Your task to perform on an android device: Clear the cart on bestbuy.com. Image 0: 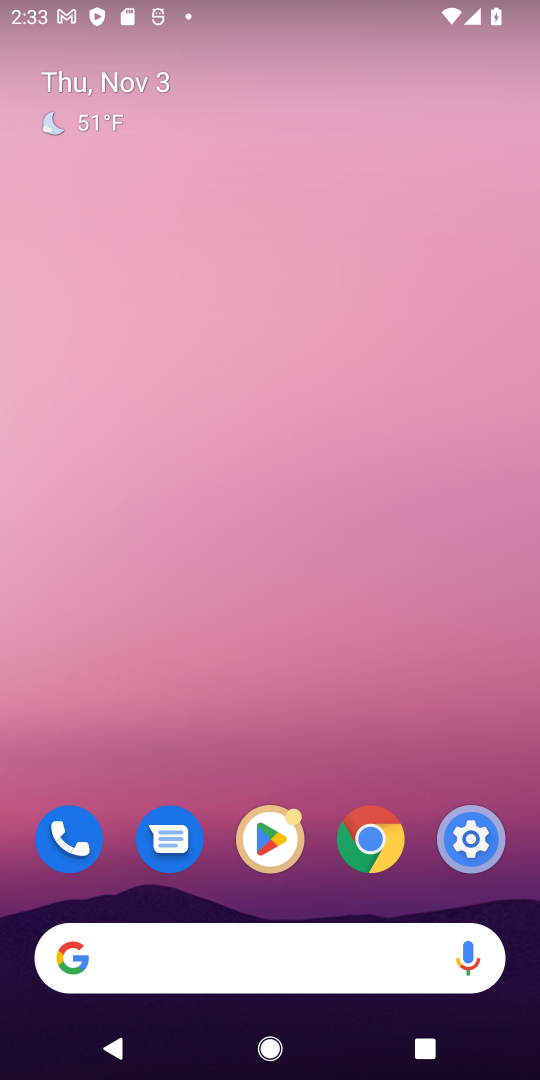
Step 0: click (266, 974)
Your task to perform on an android device: Clear the cart on bestbuy.com. Image 1: 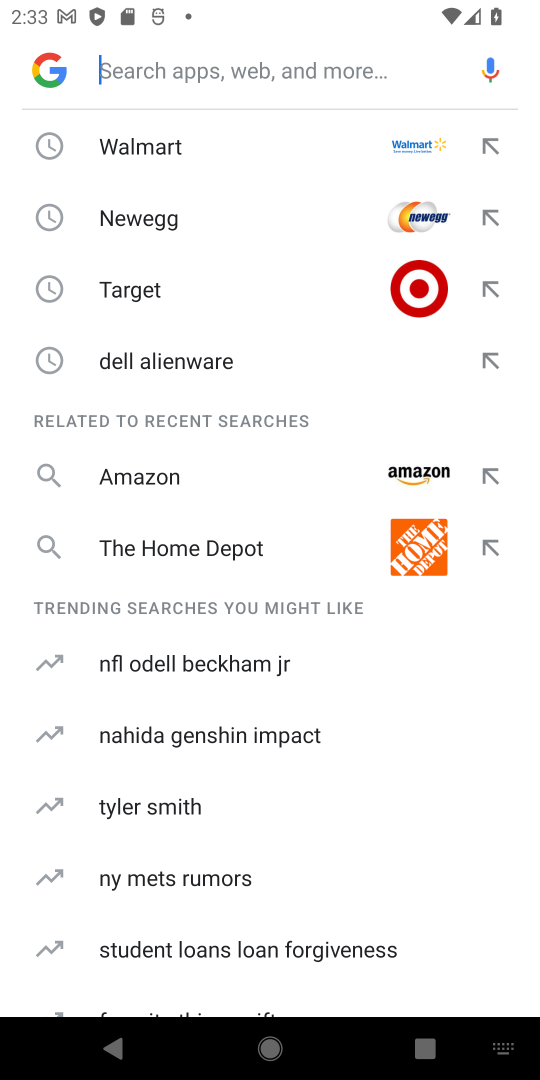
Step 1: type "bestbuy"
Your task to perform on an android device: Clear the cart on bestbuy.com. Image 2: 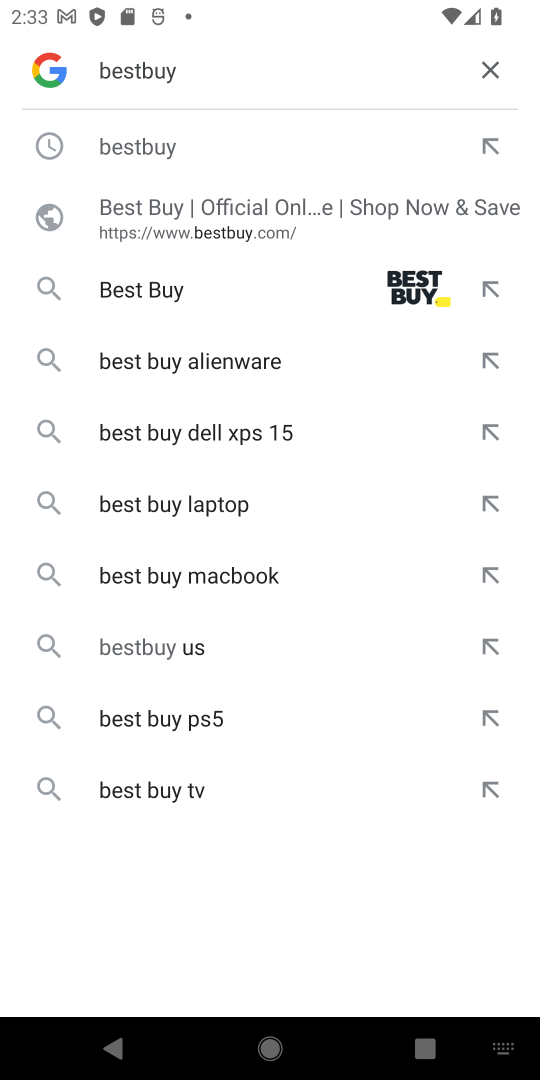
Step 2: click (424, 299)
Your task to perform on an android device: Clear the cart on bestbuy.com. Image 3: 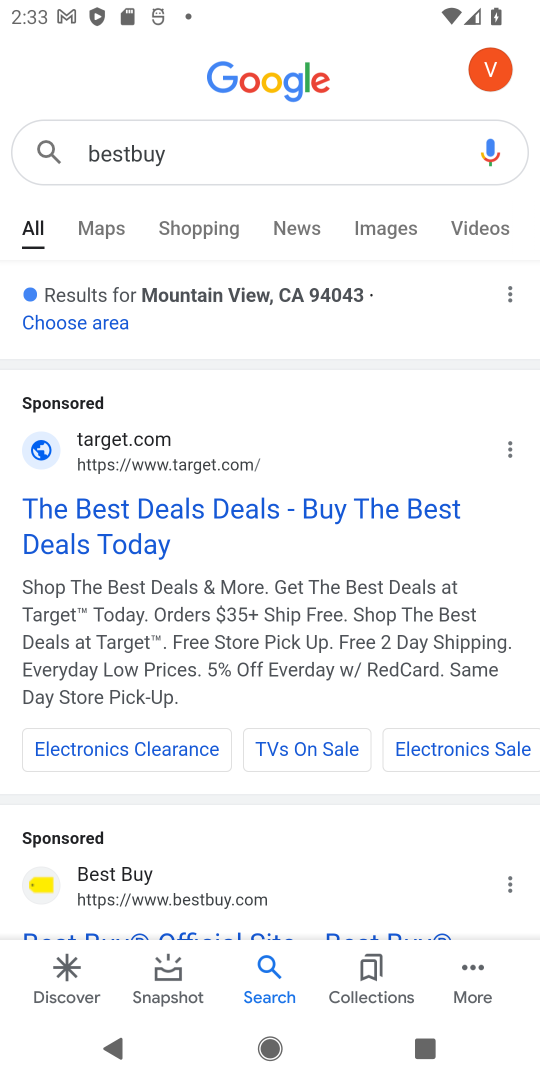
Step 3: click (182, 502)
Your task to perform on an android device: Clear the cart on bestbuy.com. Image 4: 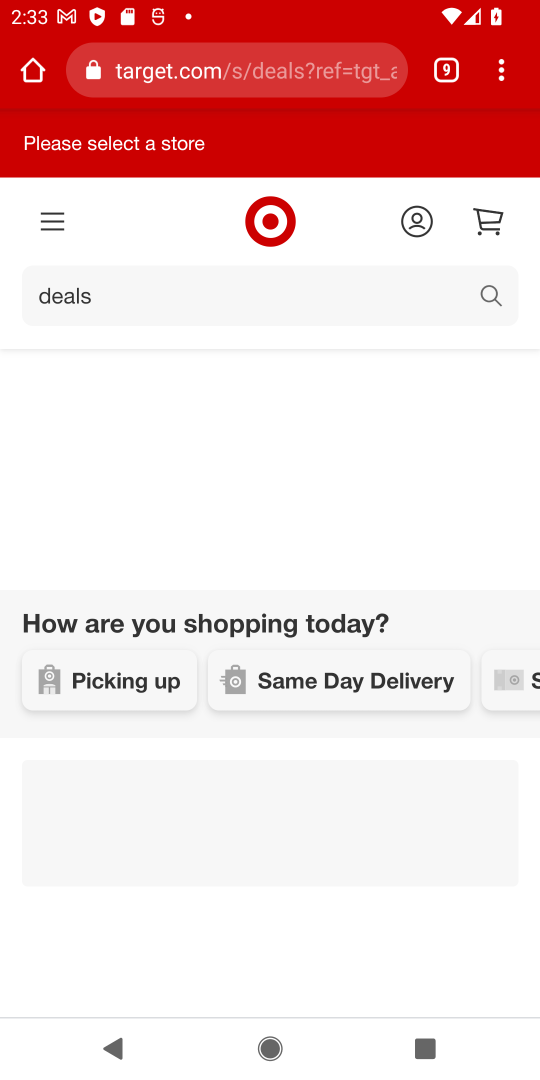
Step 4: task complete